Your task to perform on an android device: turn off priority inbox in the gmail app Image 0: 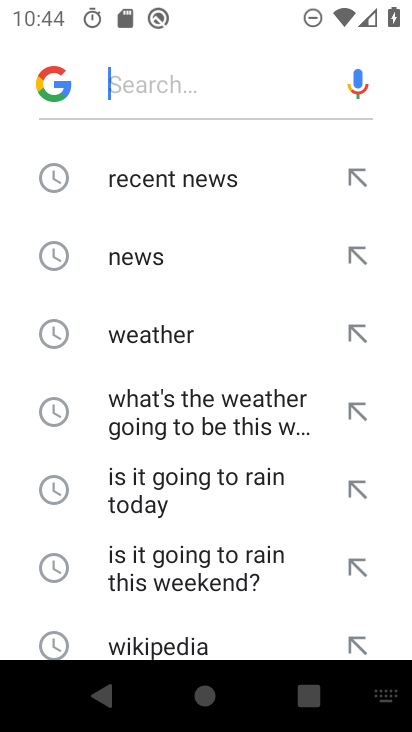
Step 0: press home button
Your task to perform on an android device: turn off priority inbox in the gmail app Image 1: 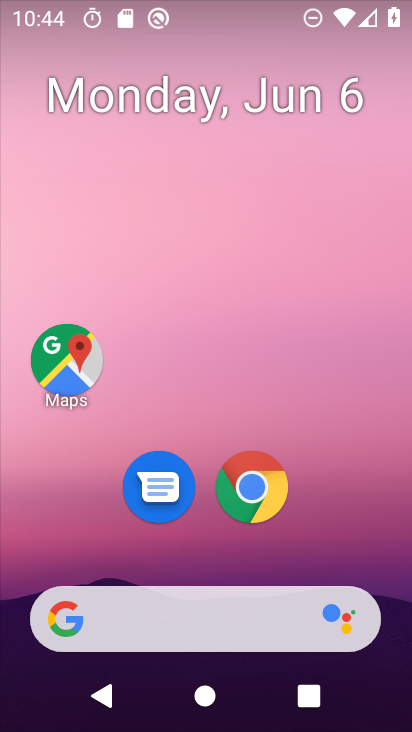
Step 1: drag from (387, 658) to (302, 30)
Your task to perform on an android device: turn off priority inbox in the gmail app Image 2: 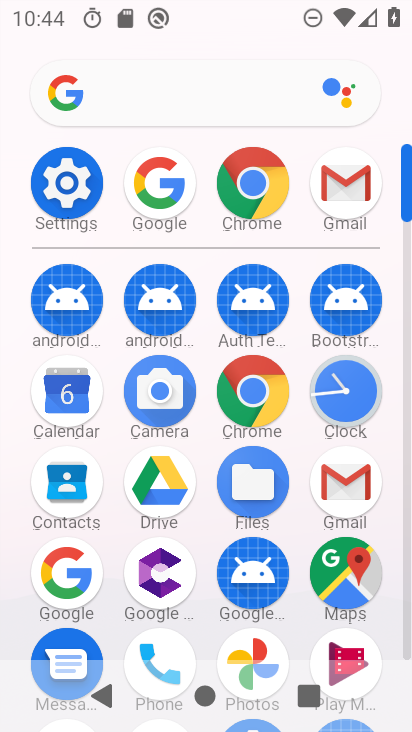
Step 2: click (358, 485)
Your task to perform on an android device: turn off priority inbox in the gmail app Image 3: 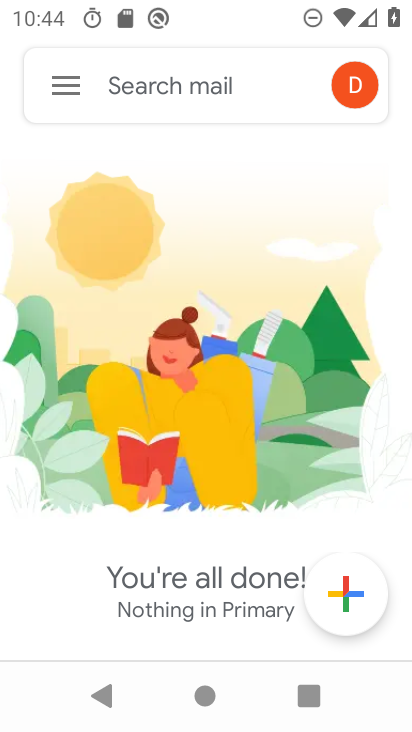
Step 3: click (63, 73)
Your task to perform on an android device: turn off priority inbox in the gmail app Image 4: 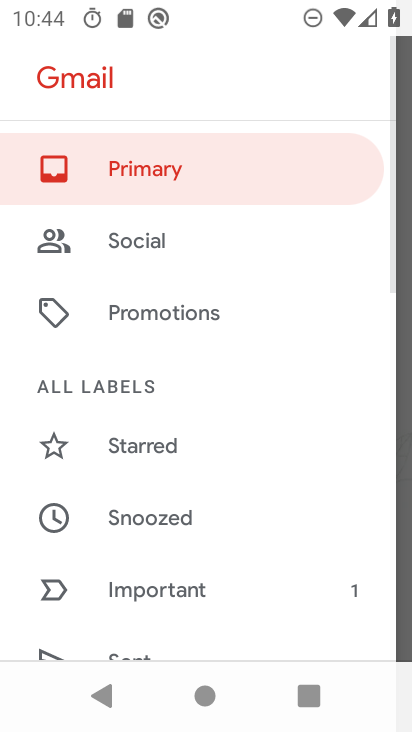
Step 4: drag from (135, 566) to (174, 80)
Your task to perform on an android device: turn off priority inbox in the gmail app Image 5: 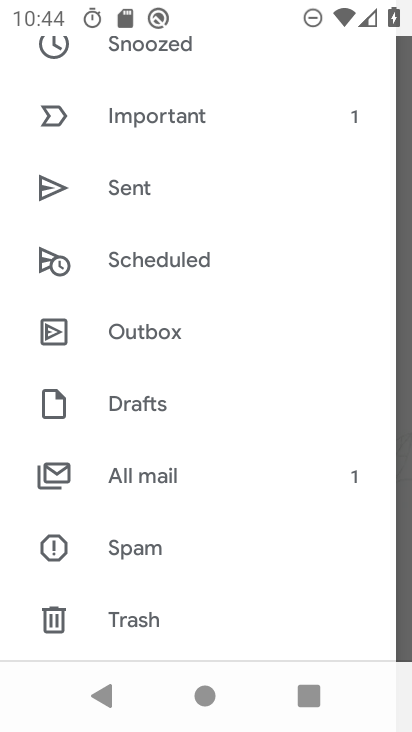
Step 5: drag from (206, 556) to (245, 92)
Your task to perform on an android device: turn off priority inbox in the gmail app Image 6: 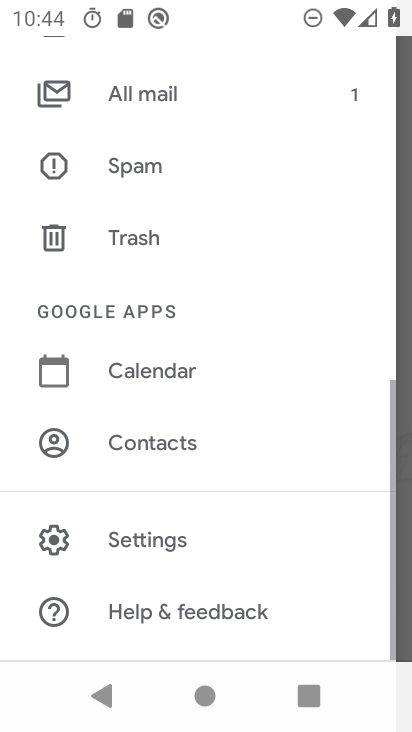
Step 6: click (140, 529)
Your task to perform on an android device: turn off priority inbox in the gmail app Image 7: 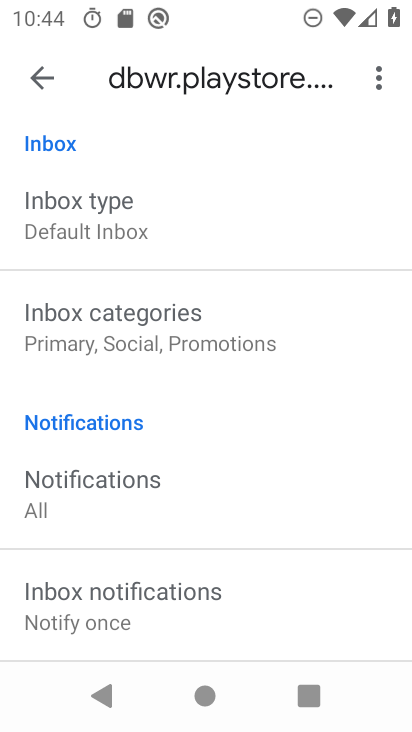
Step 7: click (126, 243)
Your task to perform on an android device: turn off priority inbox in the gmail app Image 8: 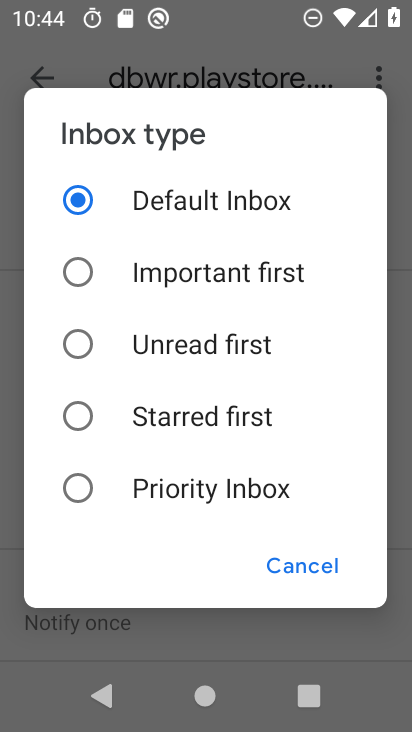
Step 8: task complete